Your task to perform on an android device: Check the news Image 0: 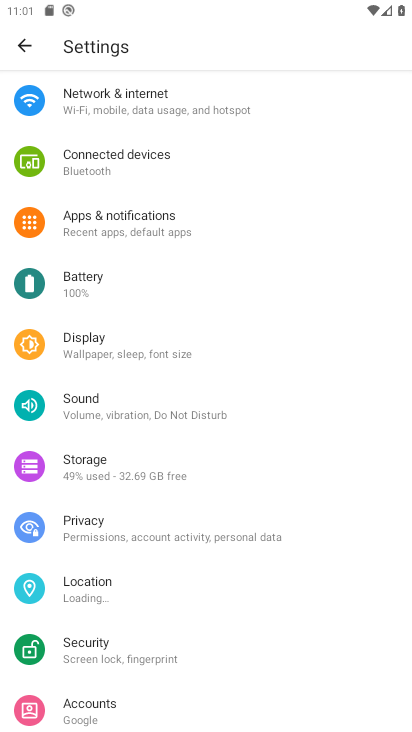
Step 0: press home button
Your task to perform on an android device: Check the news Image 1: 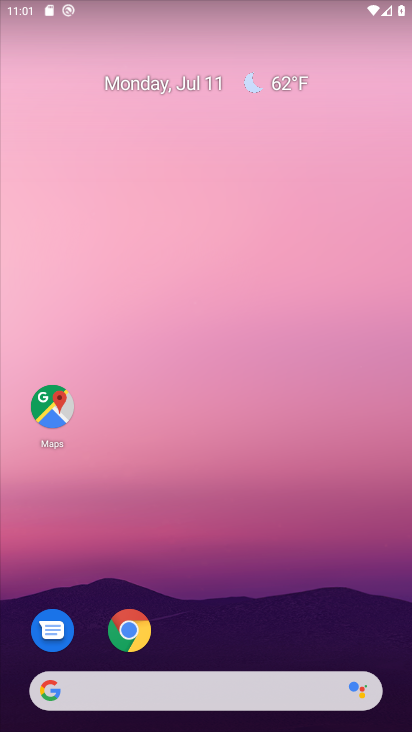
Step 1: click (222, 692)
Your task to perform on an android device: Check the news Image 2: 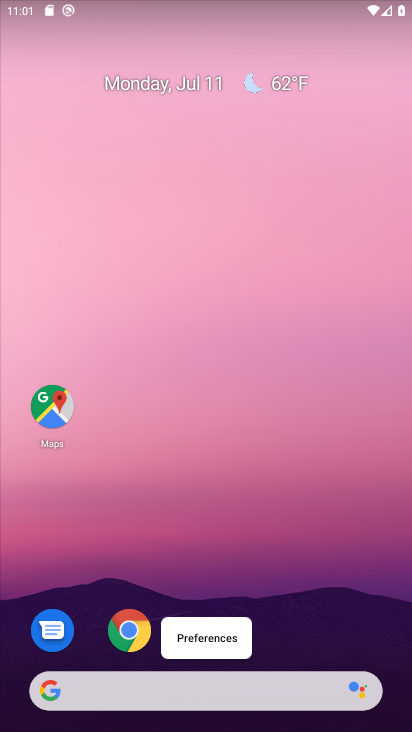
Step 2: click (213, 702)
Your task to perform on an android device: Check the news Image 3: 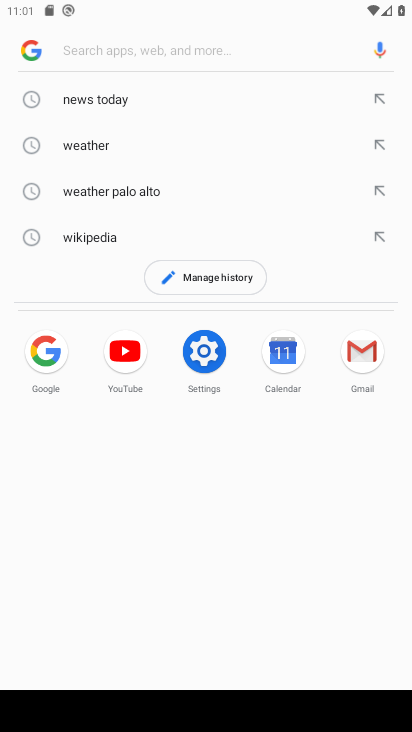
Step 3: click (93, 95)
Your task to perform on an android device: Check the news Image 4: 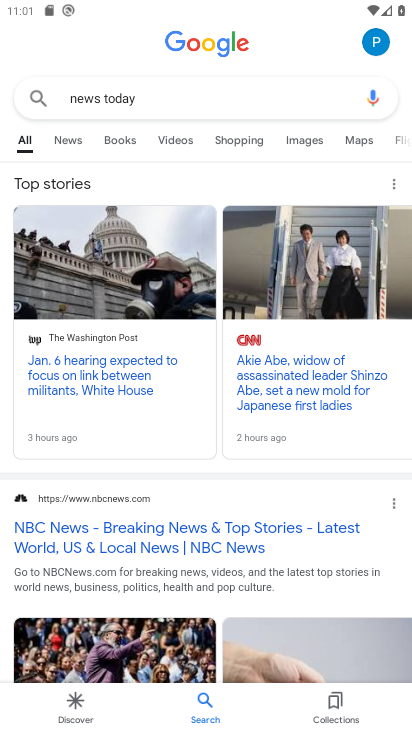
Step 4: click (71, 136)
Your task to perform on an android device: Check the news Image 5: 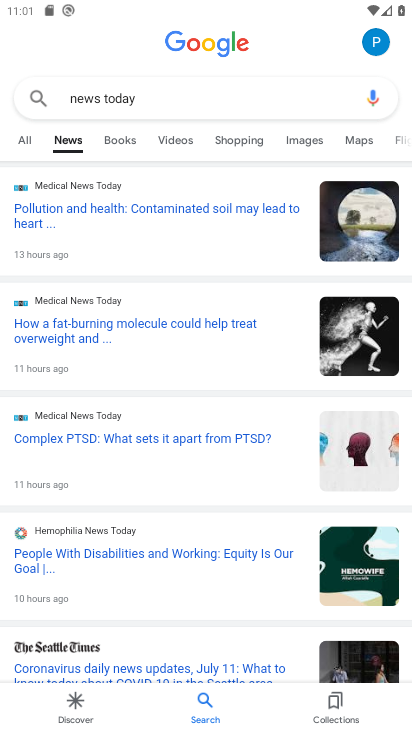
Step 5: task complete